Your task to perform on an android device: turn on wifi Image 0: 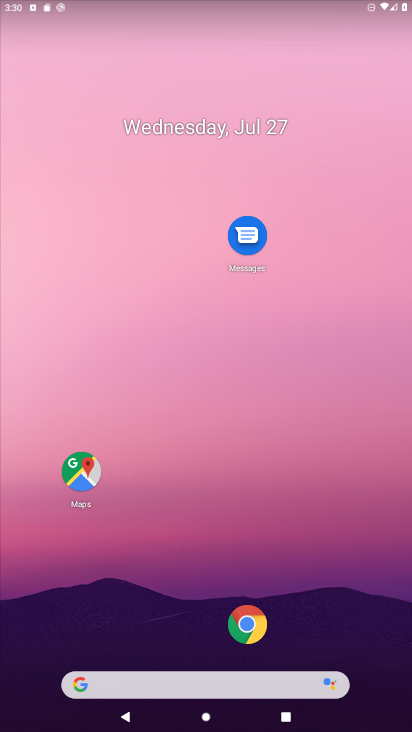
Step 0: drag from (153, 0) to (106, 411)
Your task to perform on an android device: turn on wifi Image 1: 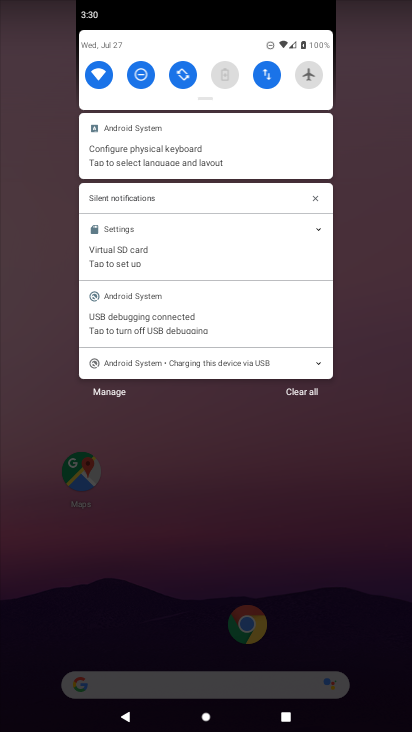
Step 1: task complete